Your task to perform on an android device: Play the last video I watched on Youtube Image 0: 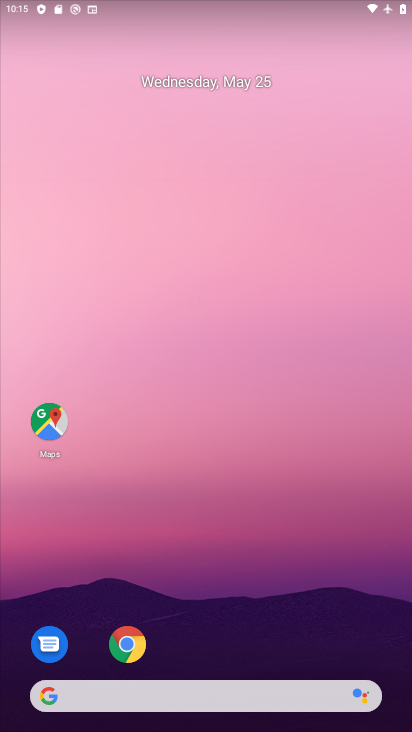
Step 0: drag from (258, 565) to (250, 112)
Your task to perform on an android device: Play the last video I watched on Youtube Image 1: 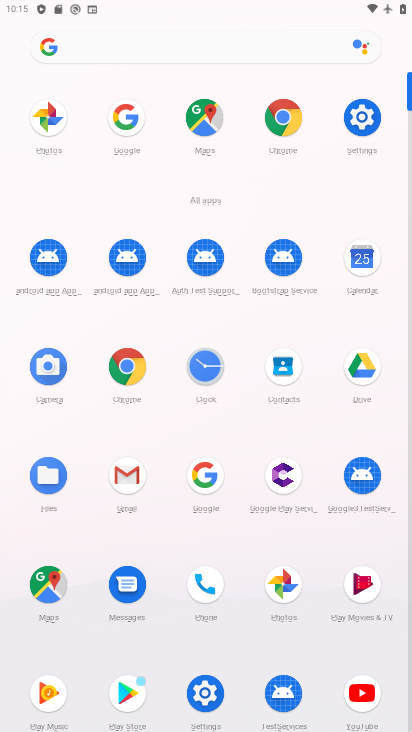
Step 1: drag from (321, 581) to (332, 352)
Your task to perform on an android device: Play the last video I watched on Youtube Image 2: 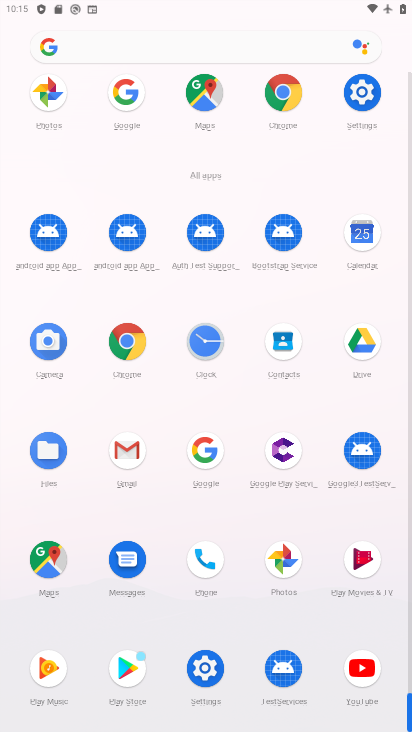
Step 2: click (365, 655)
Your task to perform on an android device: Play the last video I watched on Youtube Image 3: 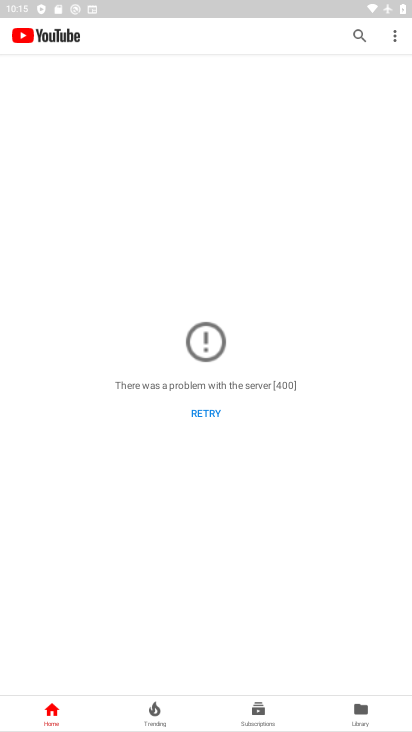
Step 3: click (364, 35)
Your task to perform on an android device: Play the last video I watched on Youtube Image 4: 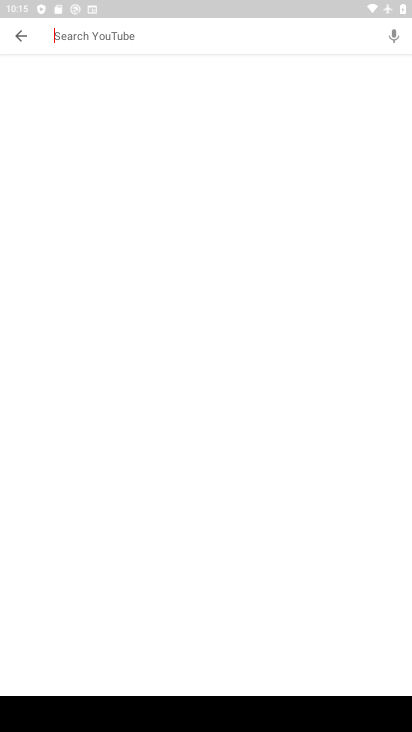
Step 4: task complete